Your task to perform on an android device: open the mobile data screen to see how much data has been used Image 0: 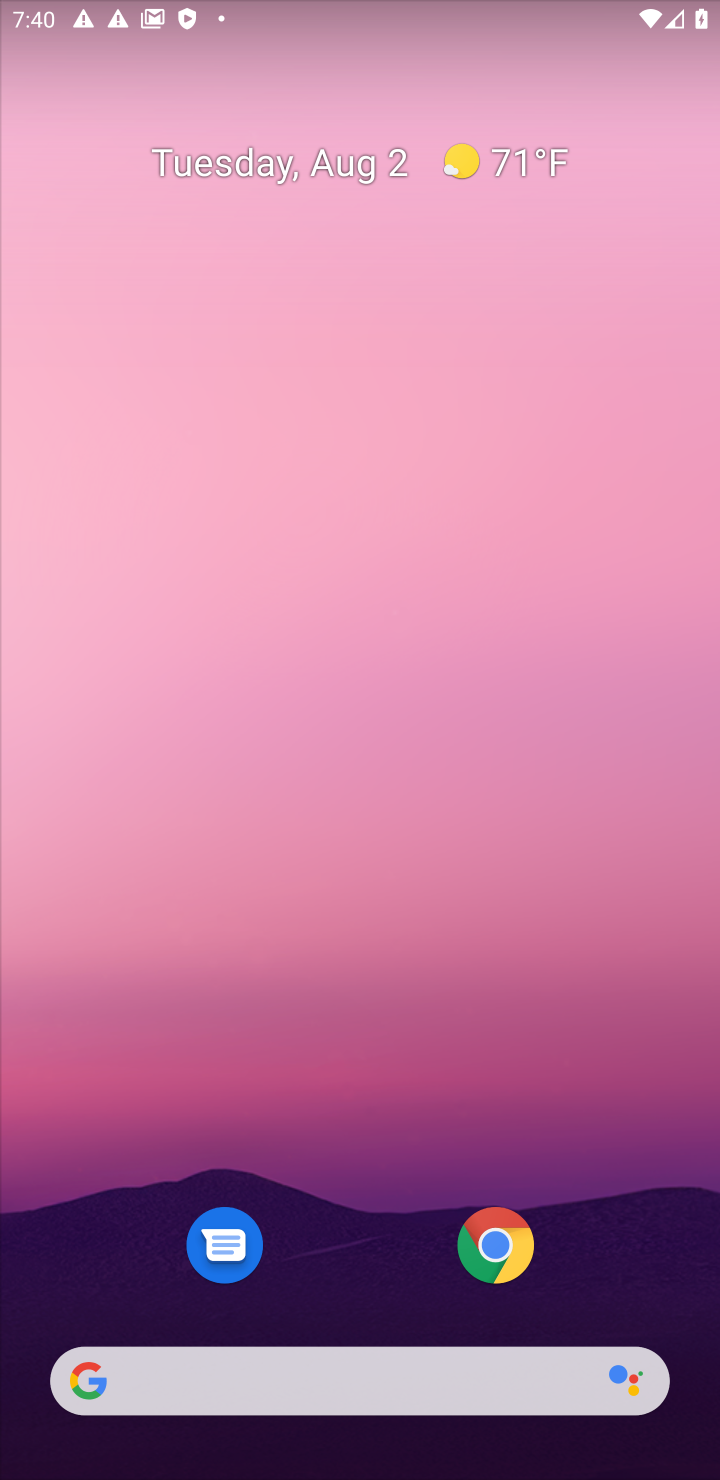
Step 0: press home button
Your task to perform on an android device: open the mobile data screen to see how much data has been used Image 1: 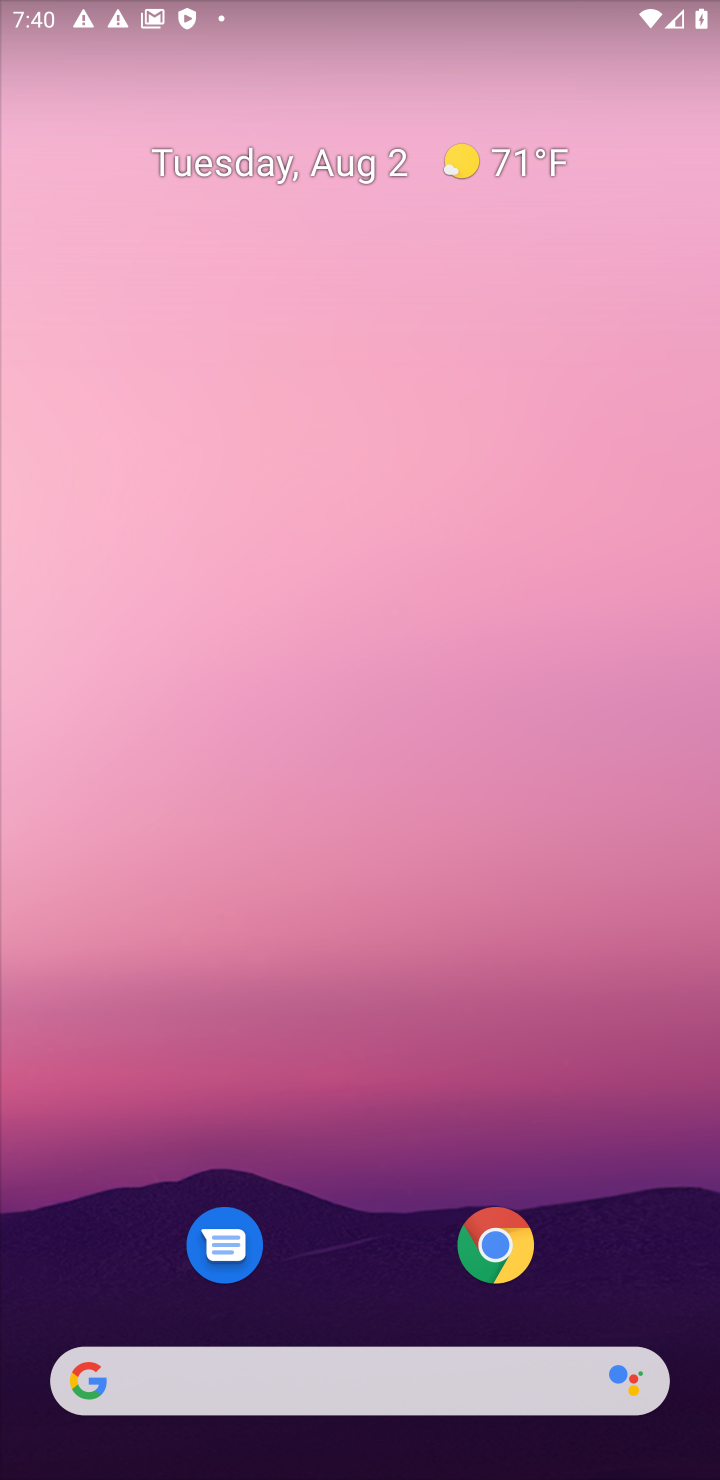
Step 1: drag from (338, 1190) to (288, 160)
Your task to perform on an android device: open the mobile data screen to see how much data has been used Image 2: 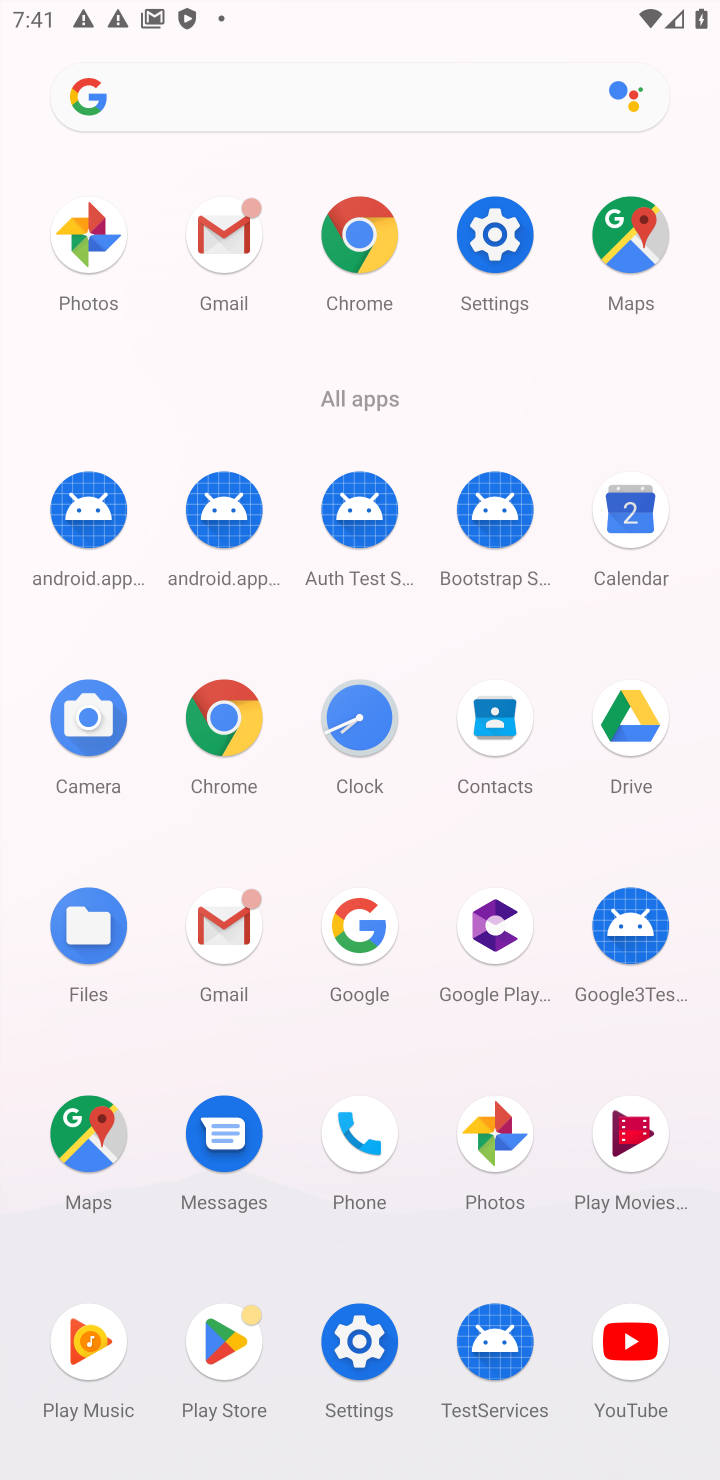
Step 2: click (349, 293)
Your task to perform on an android device: open the mobile data screen to see how much data has been used Image 3: 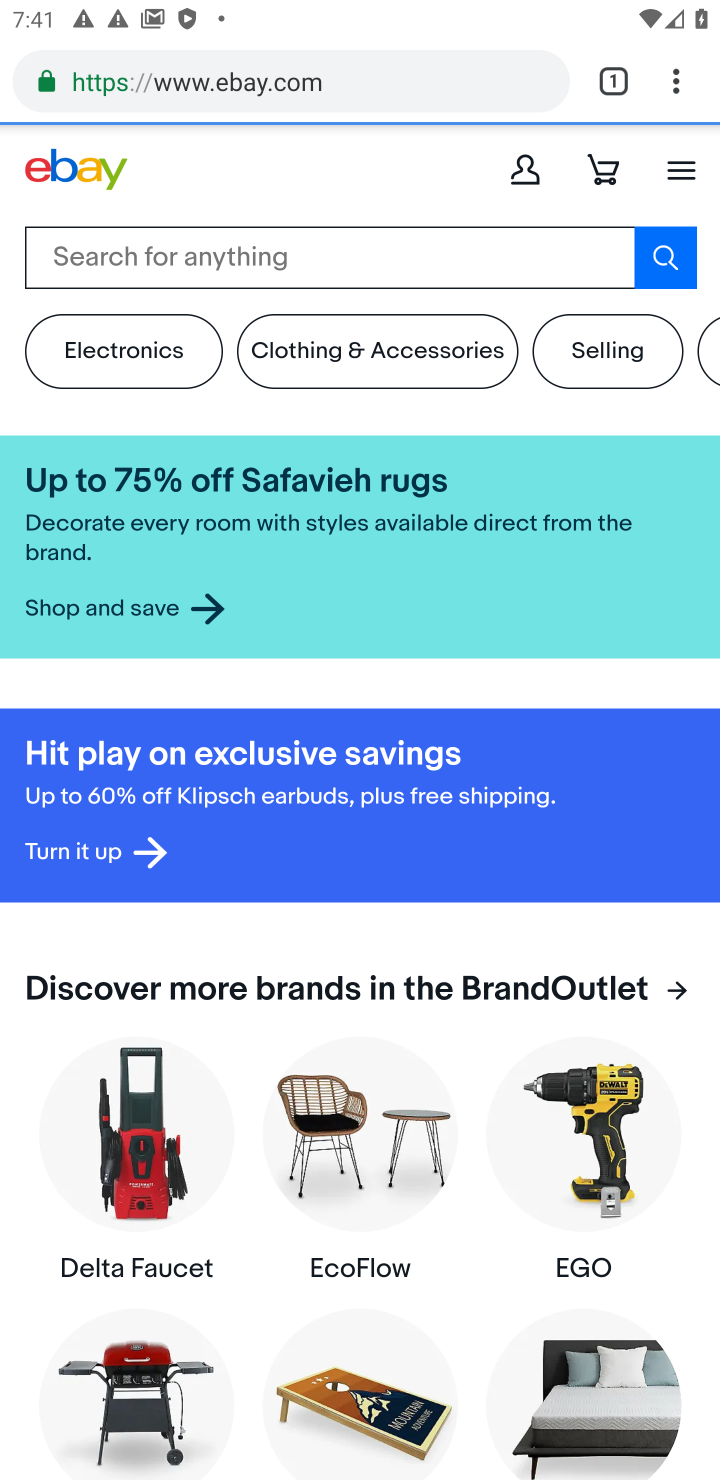
Step 3: press back button
Your task to perform on an android device: open the mobile data screen to see how much data has been used Image 4: 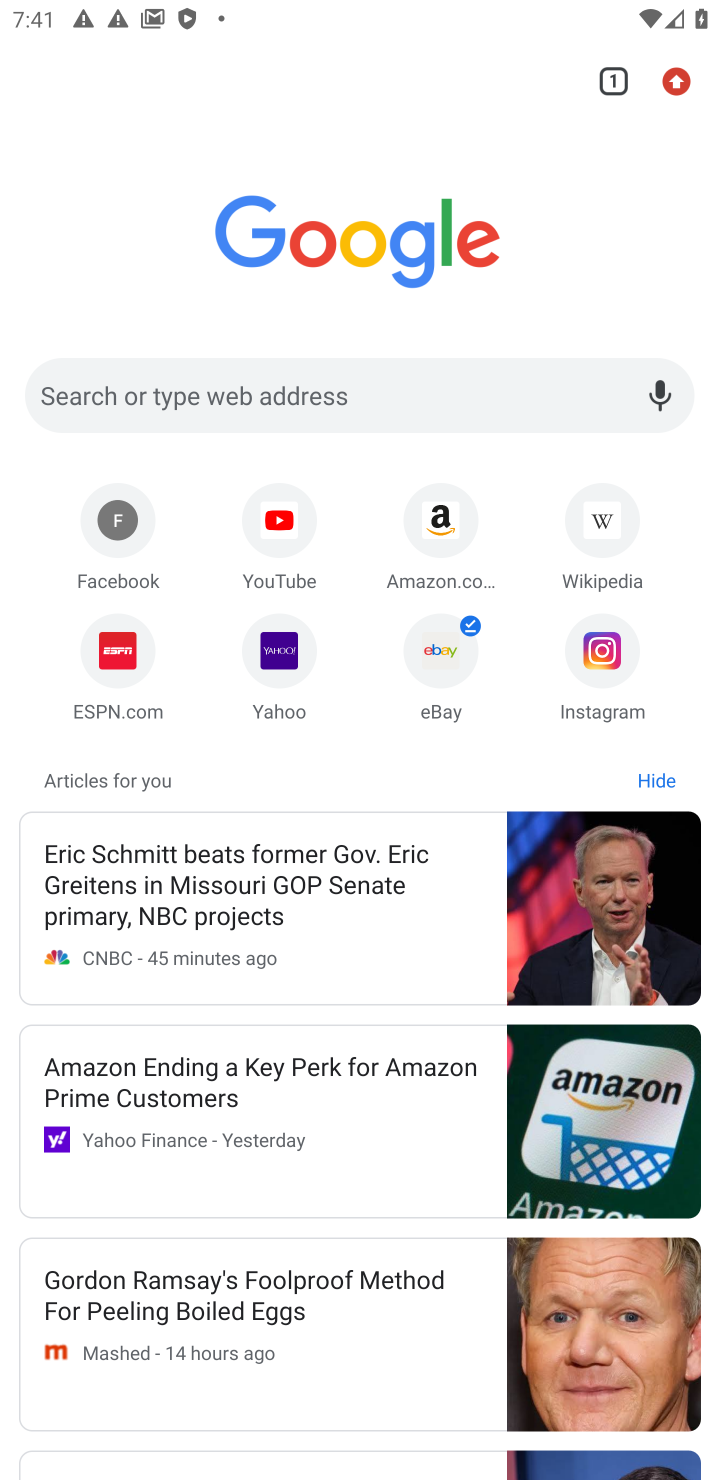
Step 4: click (587, 569)
Your task to perform on an android device: open the mobile data screen to see how much data has been used Image 5: 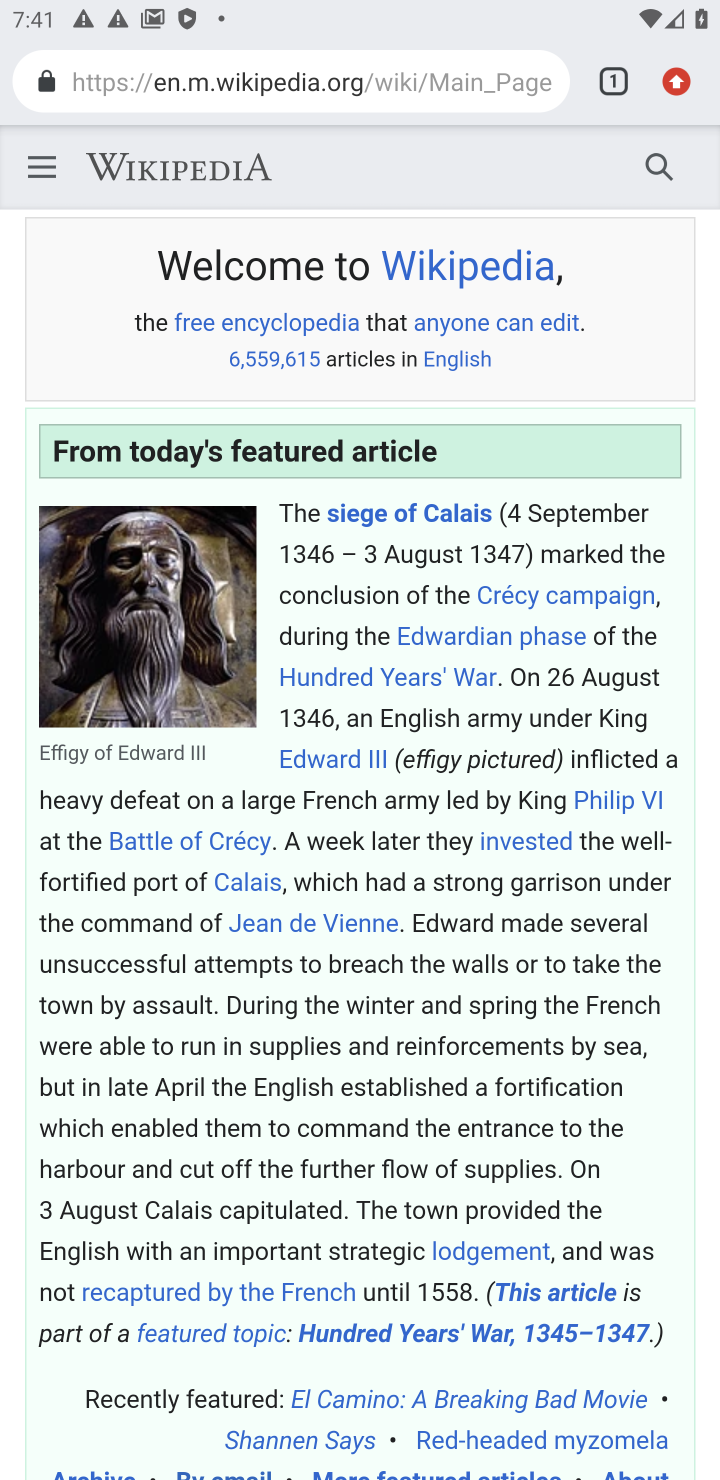
Step 5: task complete